Your task to perform on an android device: What's the weather? Image 0: 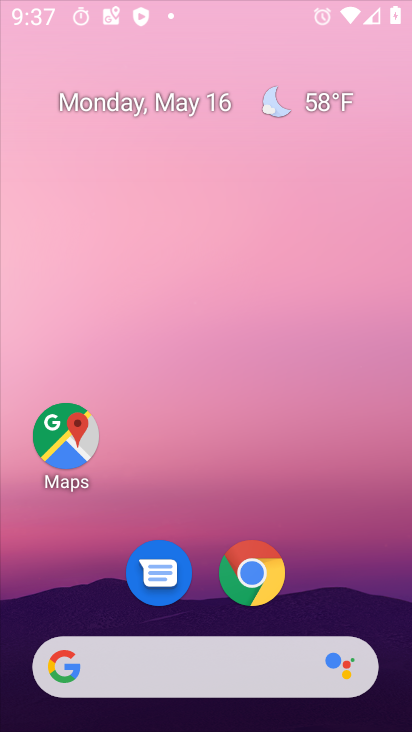
Step 0: drag from (369, 670) to (257, 19)
Your task to perform on an android device: What's the weather? Image 1: 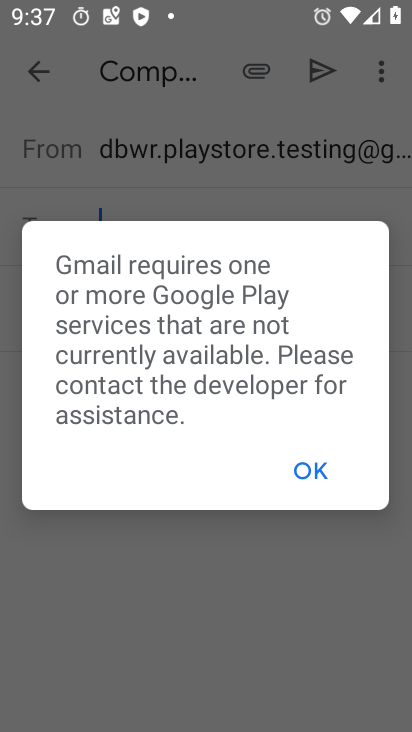
Step 1: click (306, 485)
Your task to perform on an android device: What's the weather? Image 2: 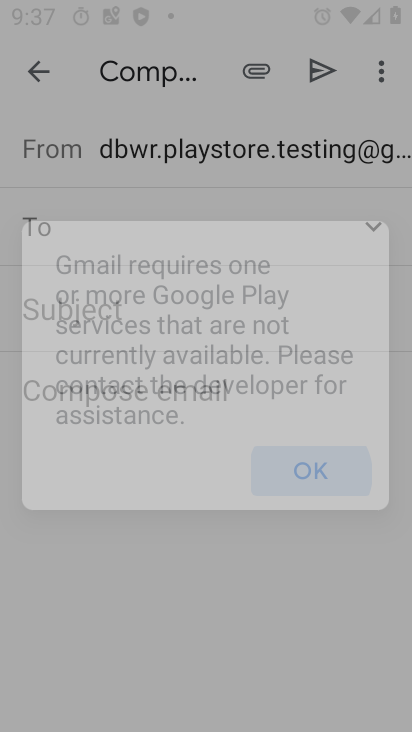
Step 2: click (306, 485)
Your task to perform on an android device: What's the weather? Image 3: 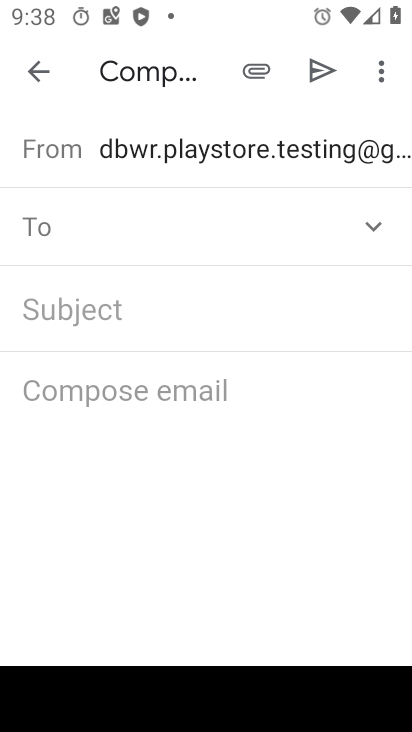
Step 3: click (41, 71)
Your task to perform on an android device: What's the weather? Image 4: 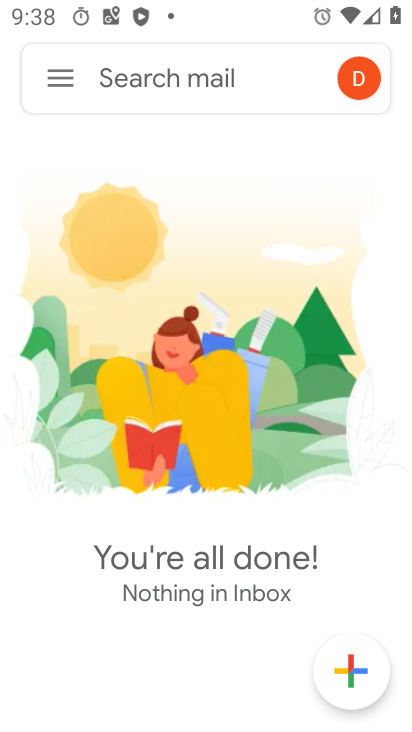
Step 4: press home button
Your task to perform on an android device: What's the weather? Image 5: 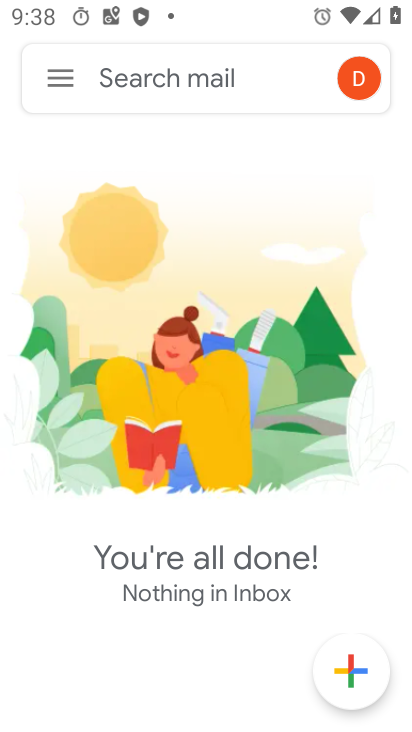
Step 5: press home button
Your task to perform on an android device: What's the weather? Image 6: 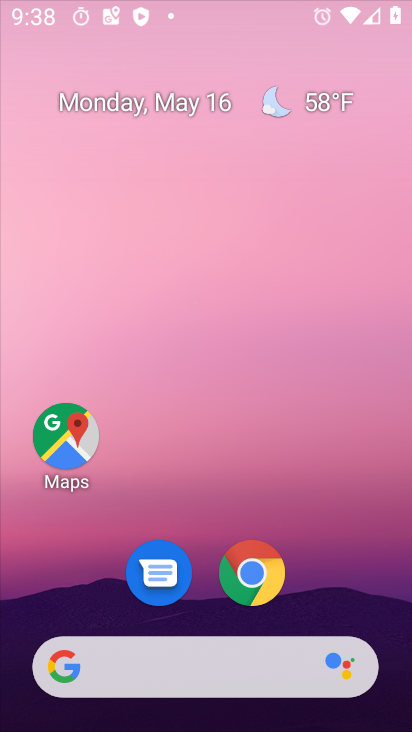
Step 6: press home button
Your task to perform on an android device: What's the weather? Image 7: 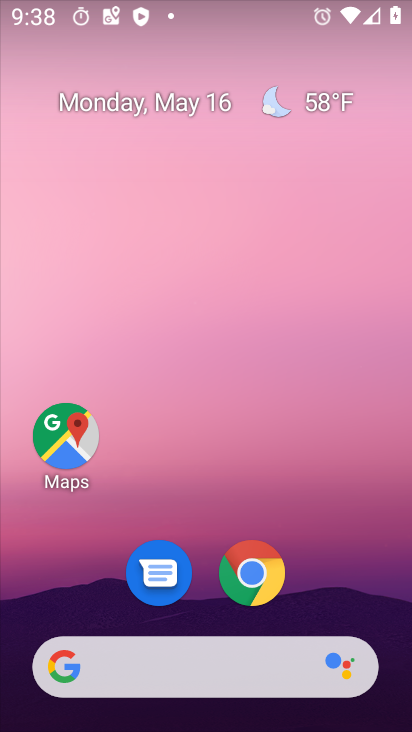
Step 7: drag from (35, 177) to (371, 444)
Your task to perform on an android device: What's the weather? Image 8: 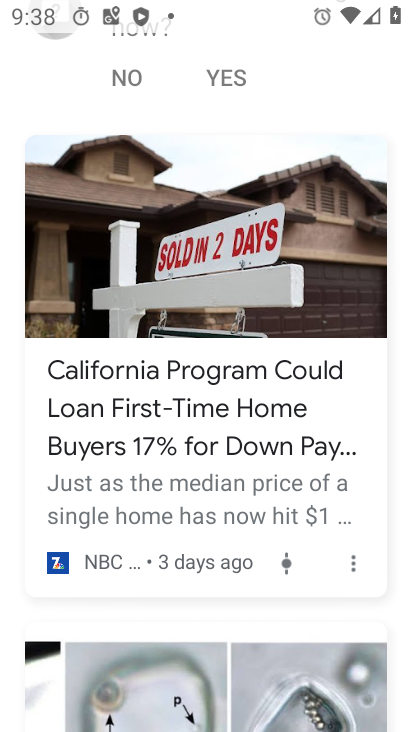
Step 8: drag from (206, 494) to (184, 211)
Your task to perform on an android device: What's the weather? Image 9: 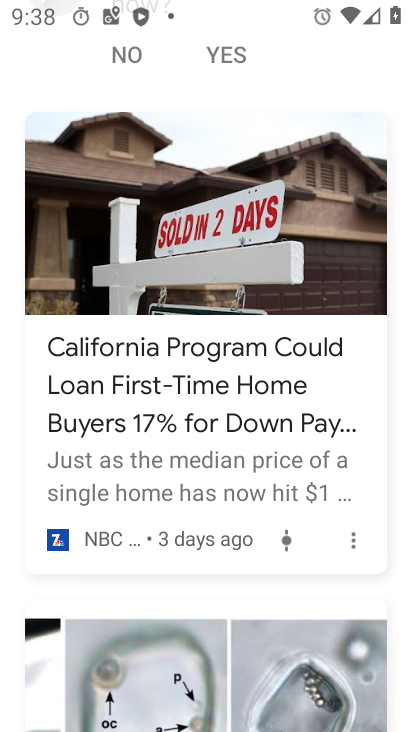
Step 9: drag from (218, 409) to (234, 140)
Your task to perform on an android device: What's the weather? Image 10: 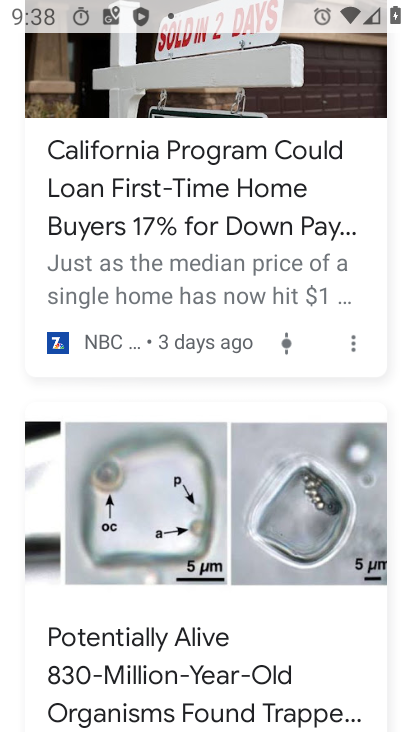
Step 10: click (253, 458)
Your task to perform on an android device: What's the weather? Image 11: 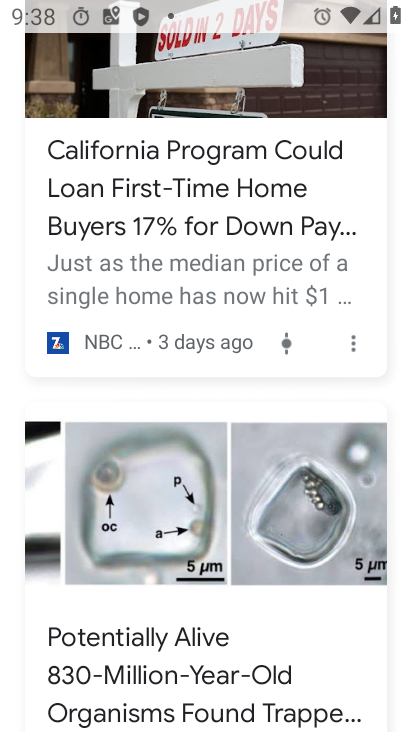
Step 11: task complete